Your task to perform on an android device: open app "Cash App" (install if not already installed) and go to login screen Image 0: 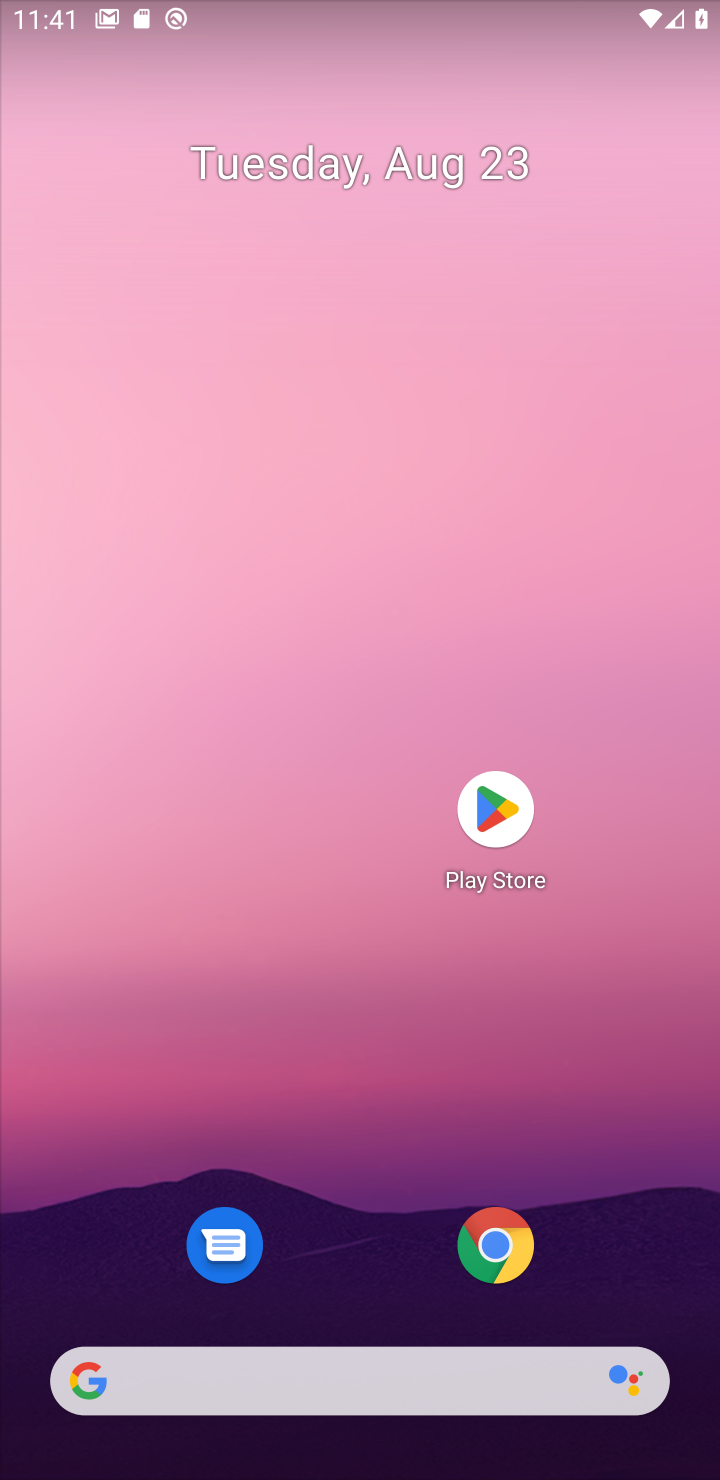
Step 0: press home button
Your task to perform on an android device: open app "Cash App" (install if not already installed) and go to login screen Image 1: 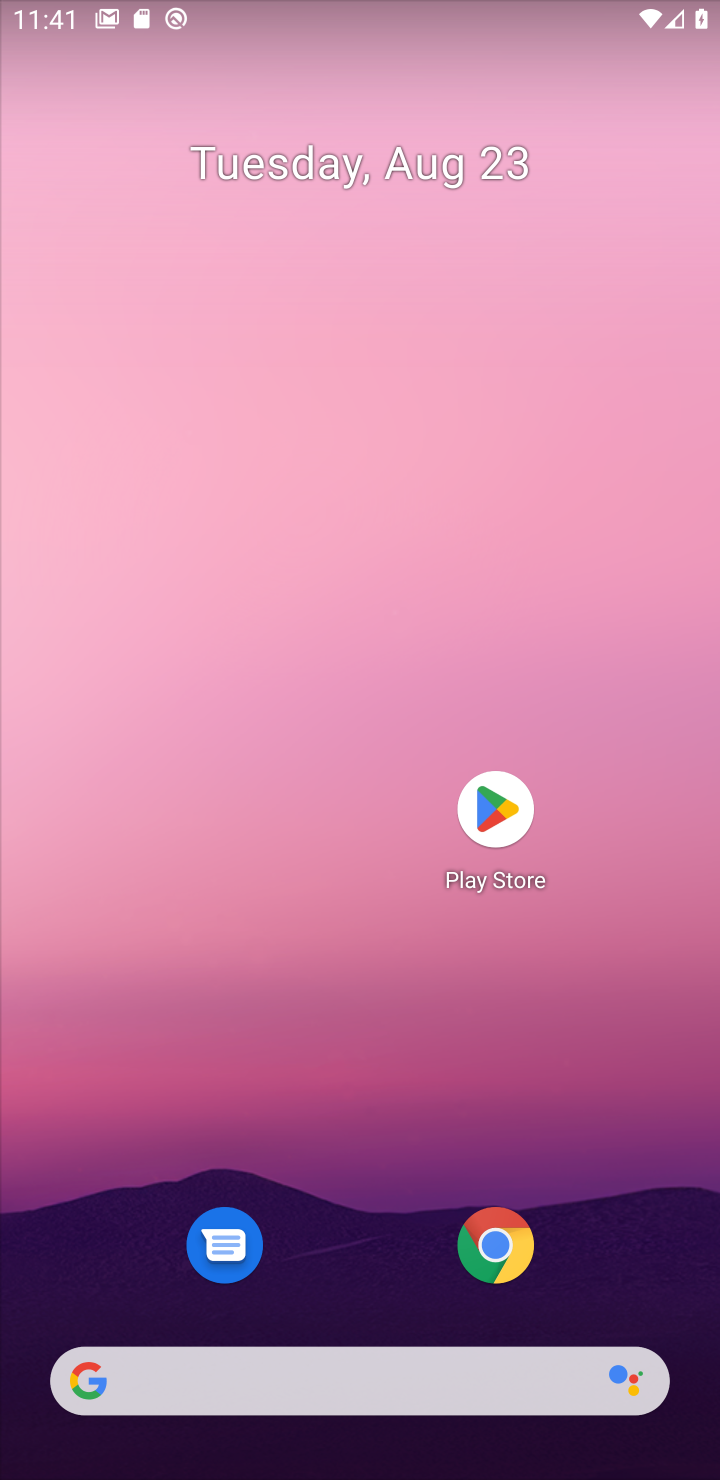
Step 1: click (491, 809)
Your task to perform on an android device: open app "Cash App" (install if not already installed) and go to login screen Image 2: 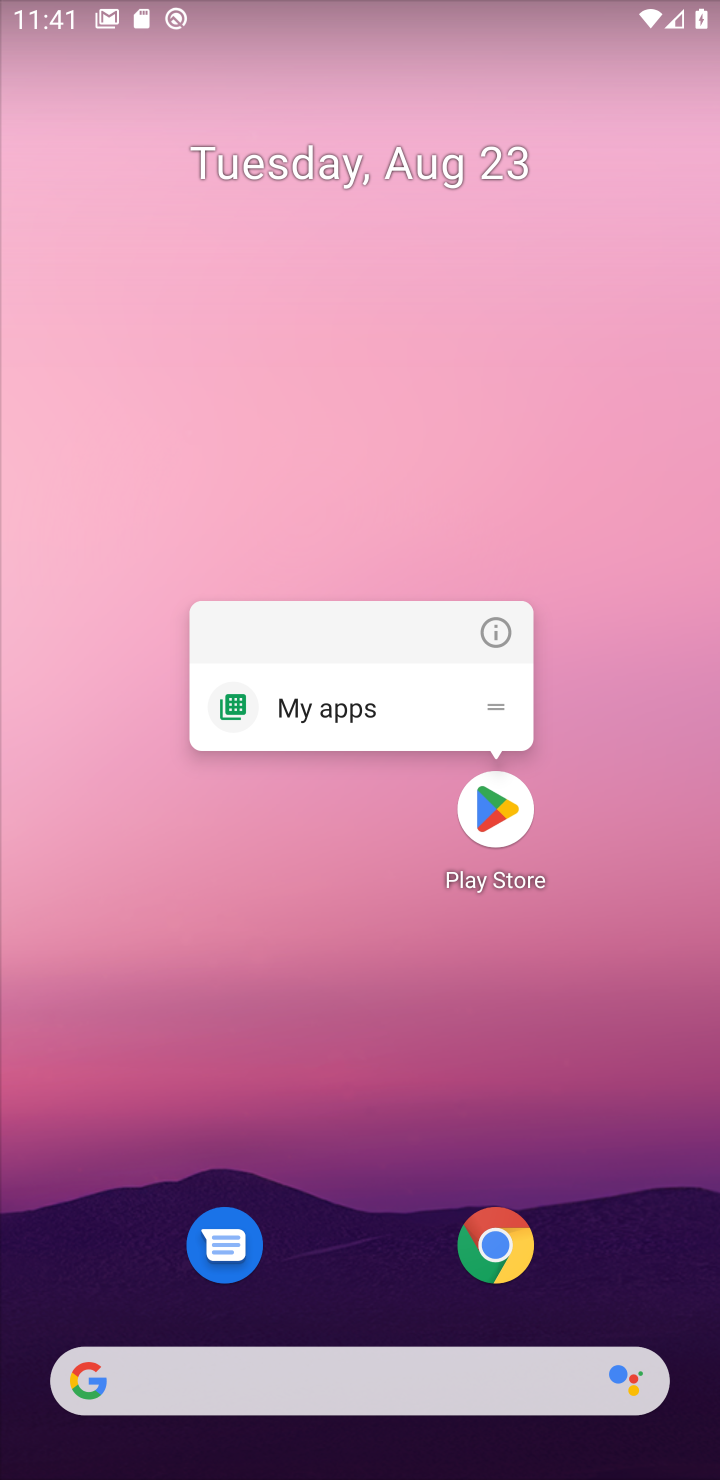
Step 2: click (491, 821)
Your task to perform on an android device: open app "Cash App" (install if not already installed) and go to login screen Image 3: 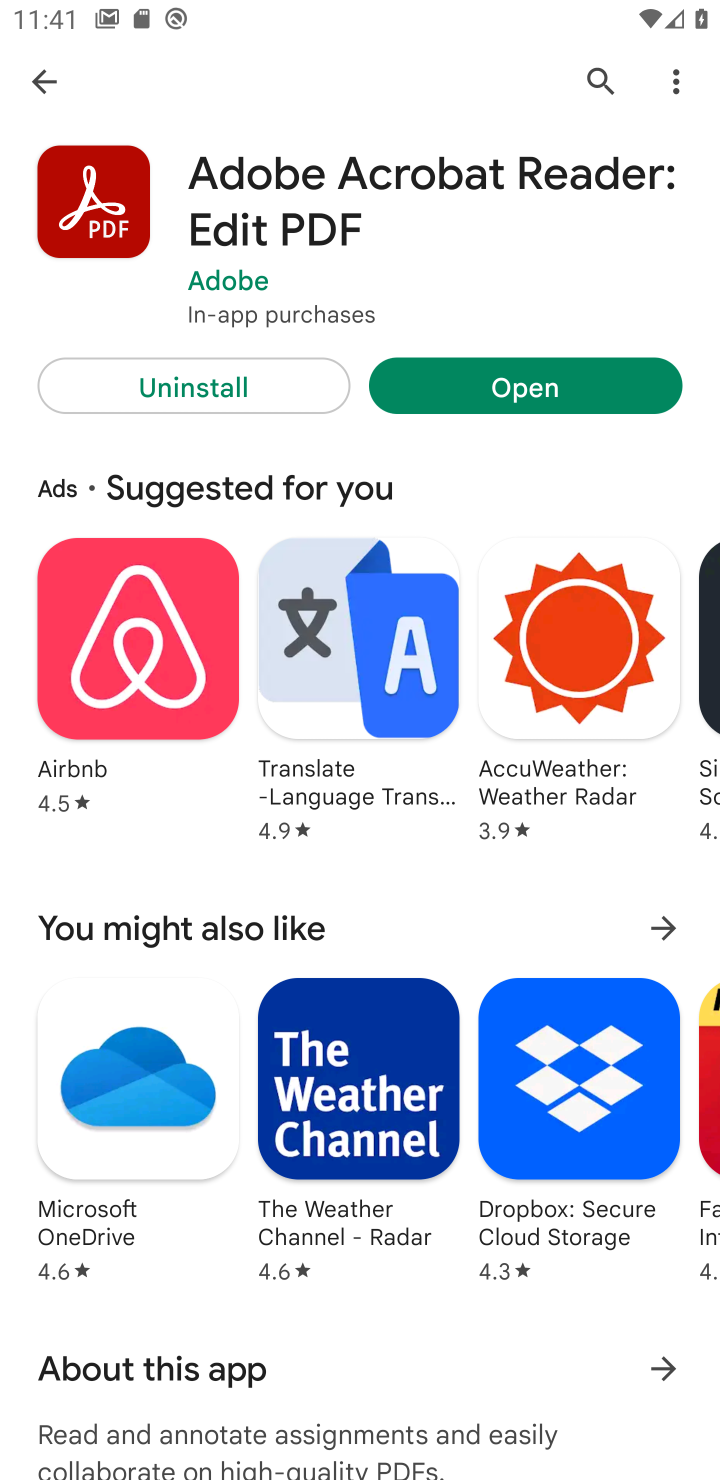
Step 3: click (589, 81)
Your task to perform on an android device: open app "Cash App" (install if not already installed) and go to login screen Image 4: 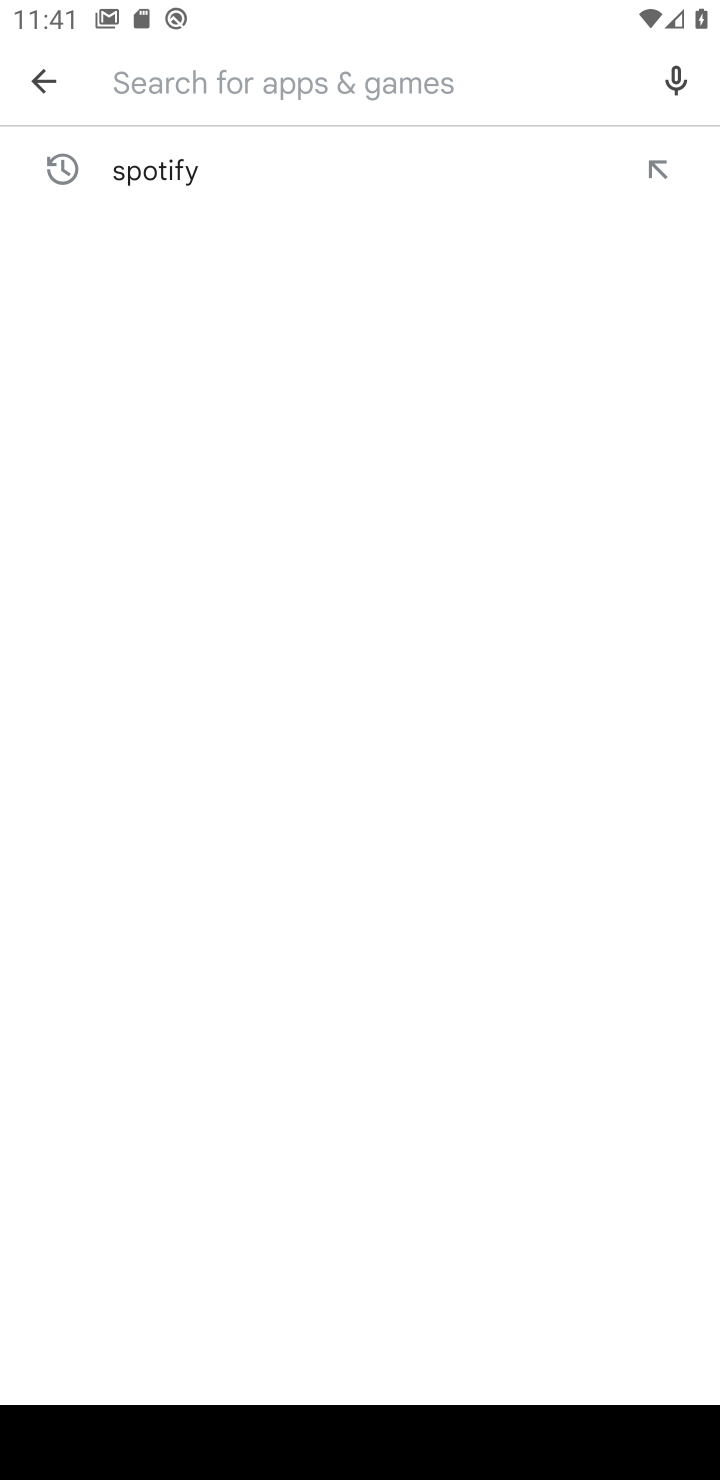
Step 4: type "Cash App"
Your task to perform on an android device: open app "Cash App" (install if not already installed) and go to login screen Image 5: 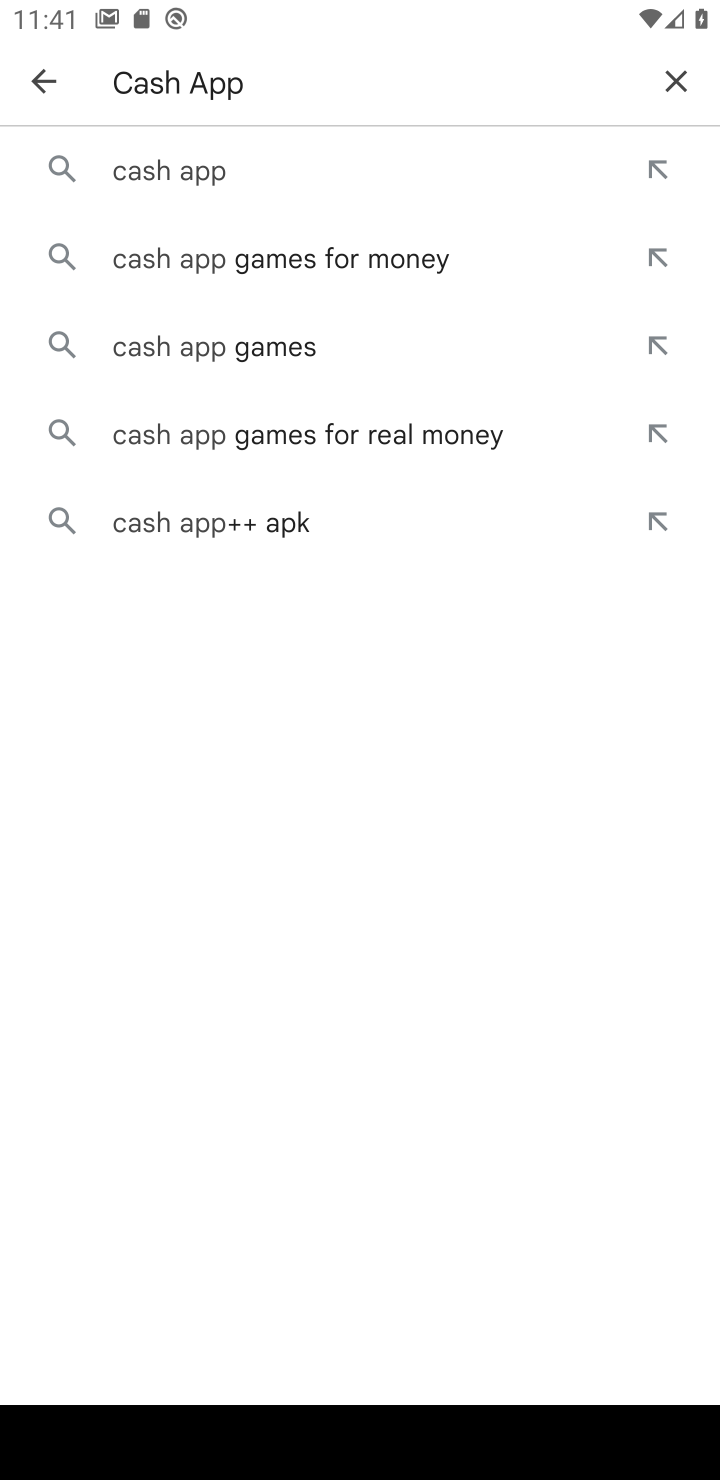
Step 5: click (186, 164)
Your task to perform on an android device: open app "Cash App" (install if not already installed) and go to login screen Image 6: 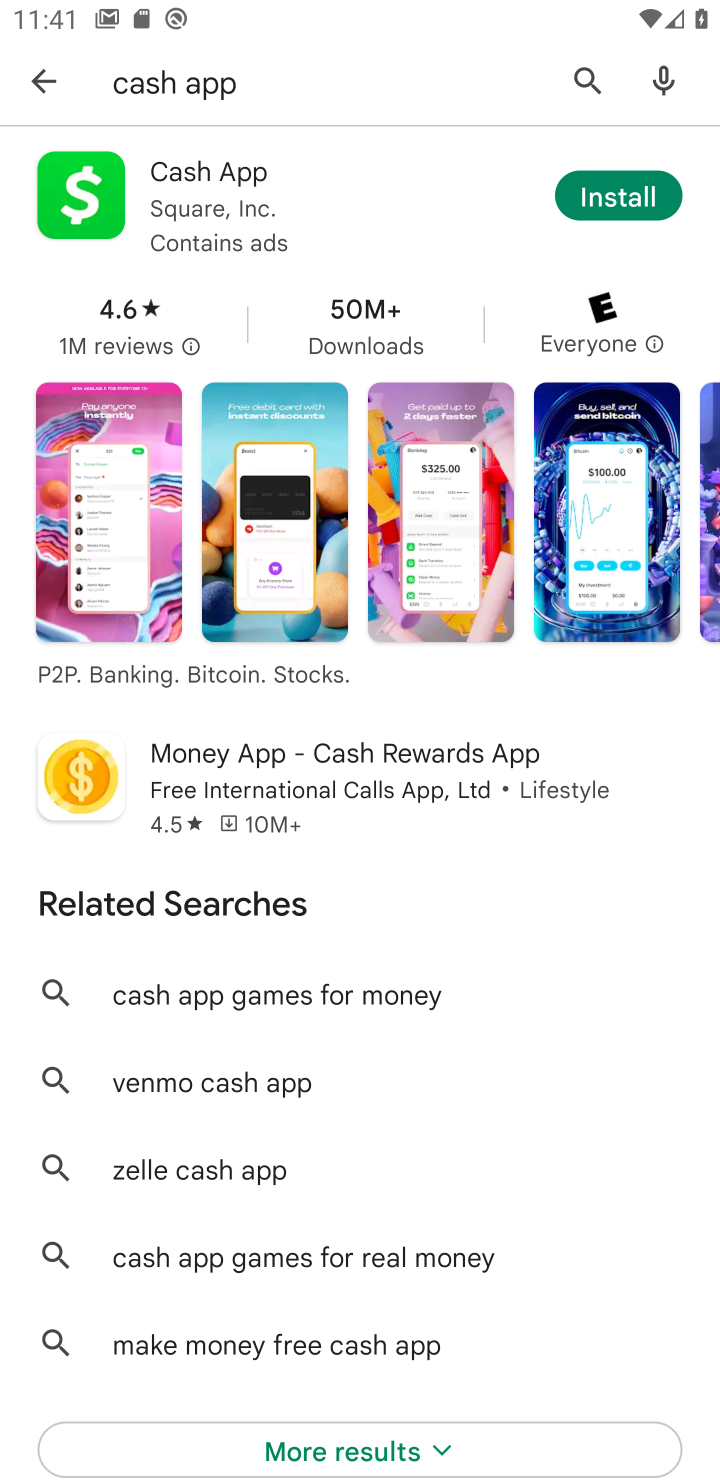
Step 6: click (606, 179)
Your task to perform on an android device: open app "Cash App" (install if not already installed) and go to login screen Image 7: 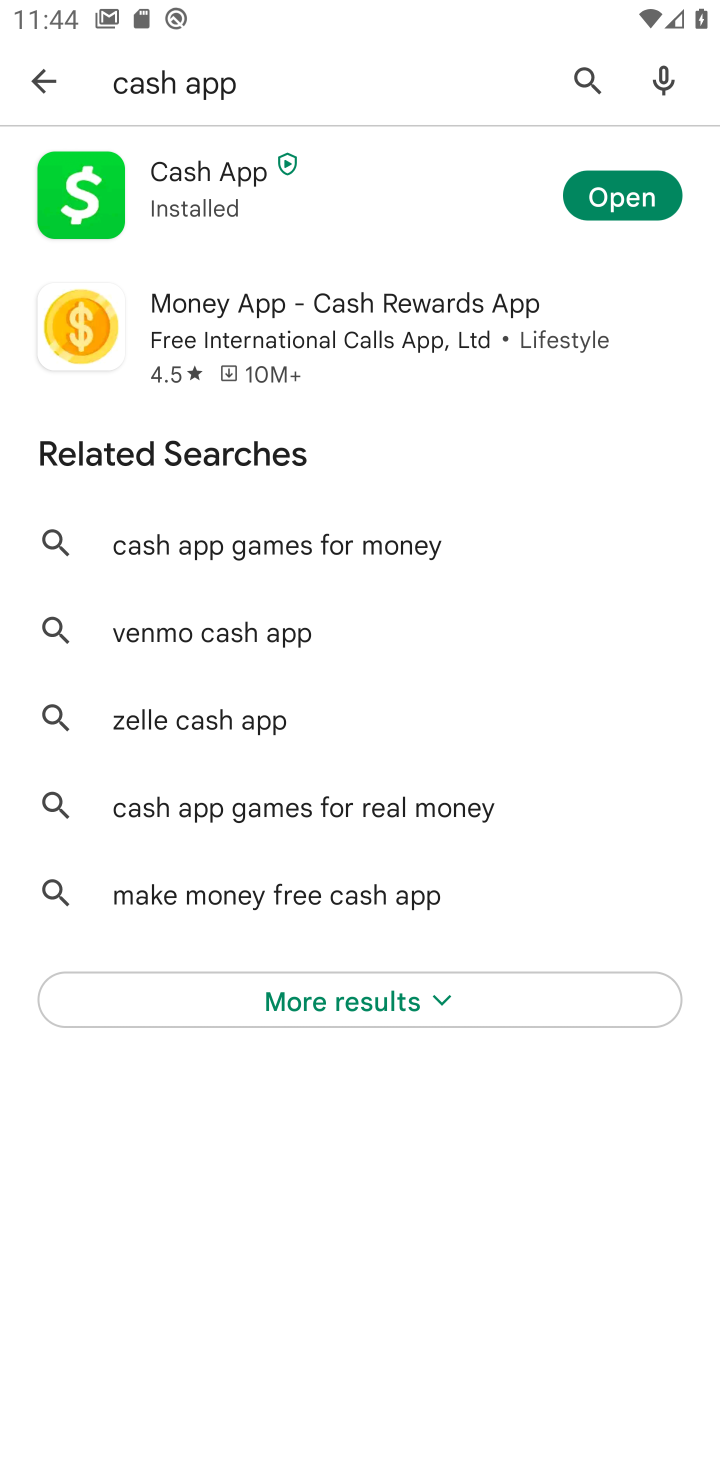
Step 7: click (640, 201)
Your task to perform on an android device: open app "Cash App" (install if not already installed) and go to login screen Image 8: 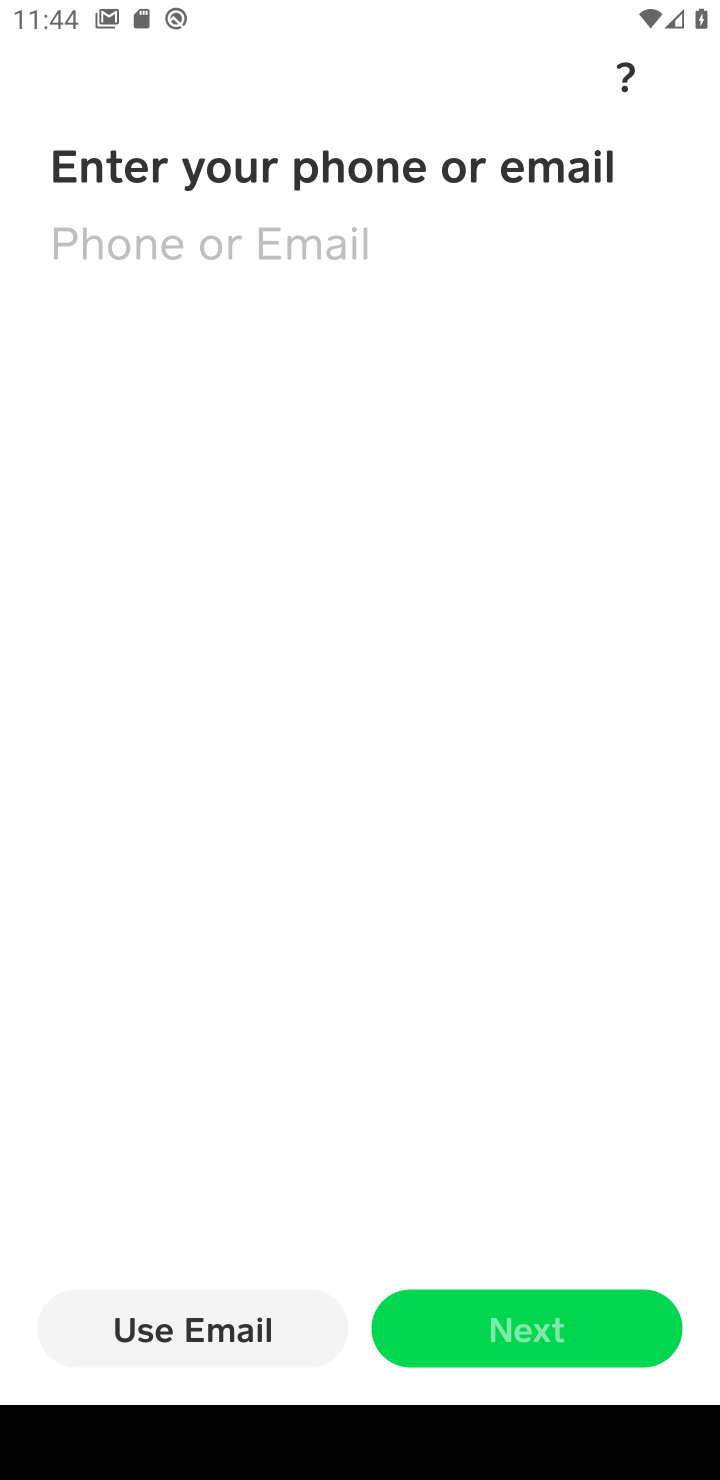
Step 8: task complete